Your task to perform on an android device: Go to Yahoo.com Image 0: 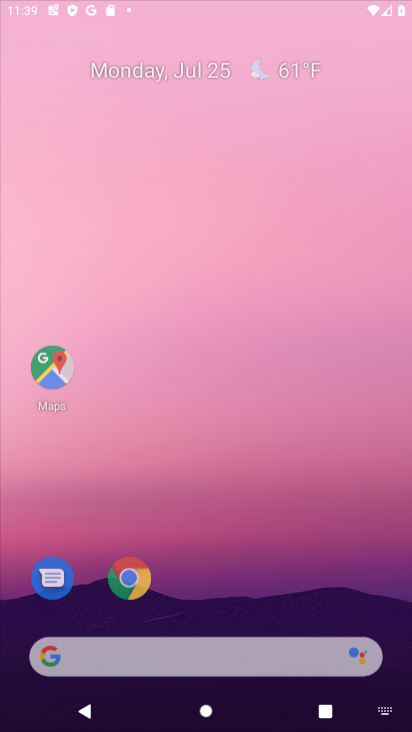
Step 0: press home button
Your task to perform on an android device: Go to Yahoo.com Image 1: 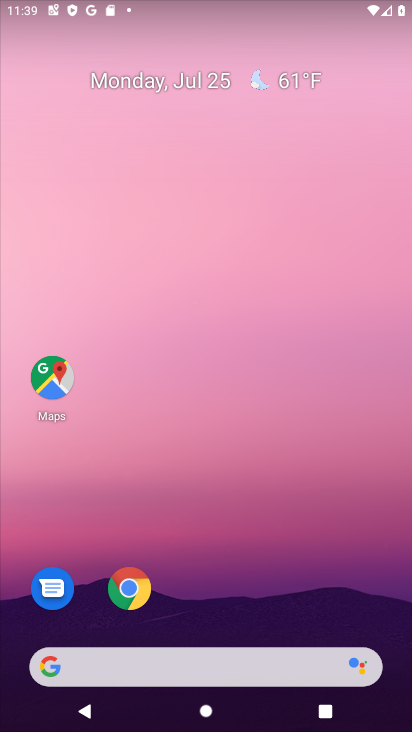
Step 1: click (124, 582)
Your task to perform on an android device: Go to Yahoo.com Image 2: 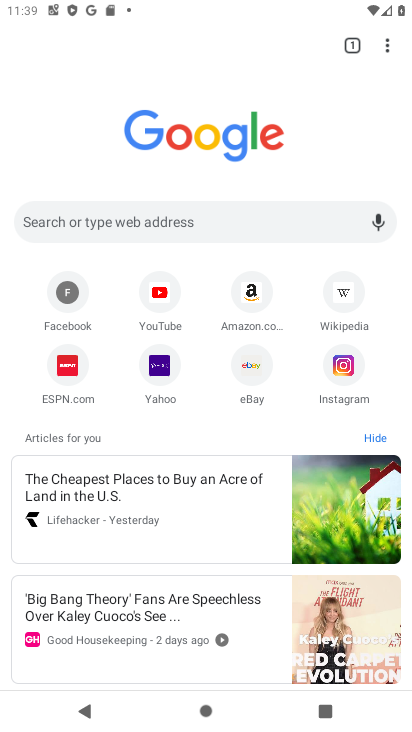
Step 2: click (154, 360)
Your task to perform on an android device: Go to Yahoo.com Image 3: 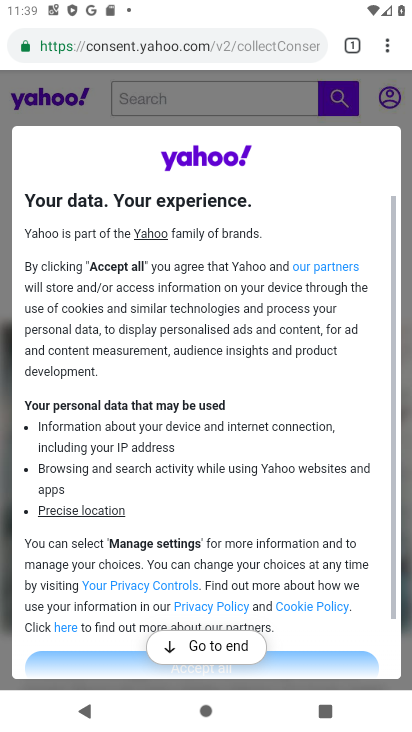
Step 3: click (210, 663)
Your task to perform on an android device: Go to Yahoo.com Image 4: 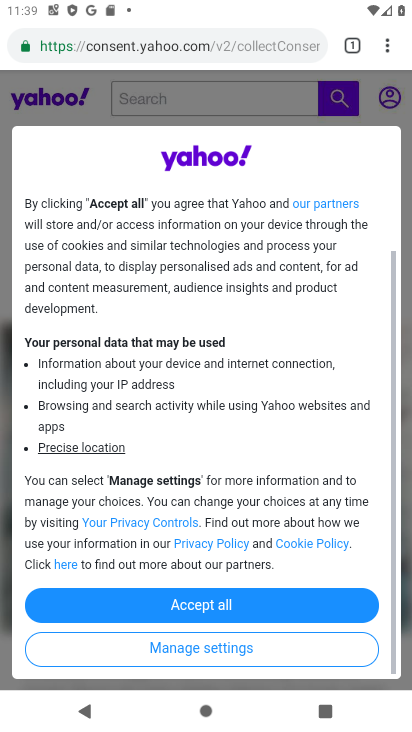
Step 4: click (206, 607)
Your task to perform on an android device: Go to Yahoo.com Image 5: 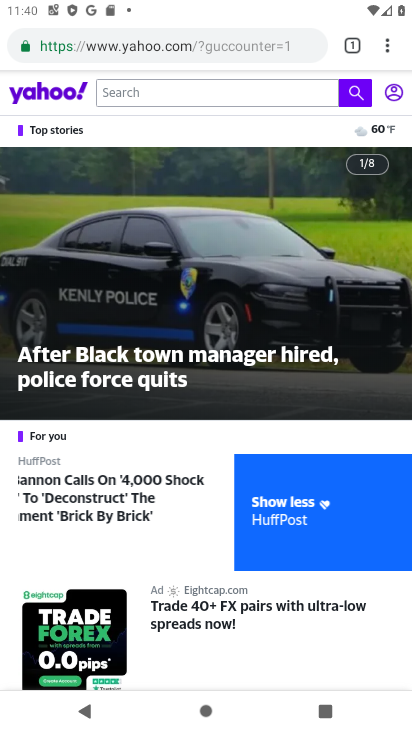
Step 5: task complete